Your task to perform on an android device: visit the assistant section in the google photos Image 0: 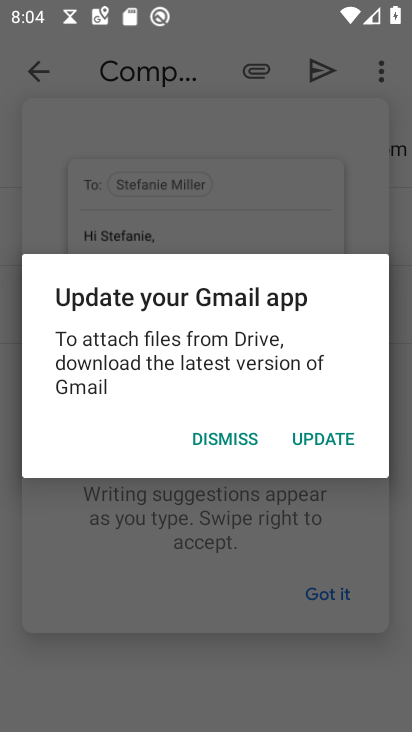
Step 0: press home button
Your task to perform on an android device: visit the assistant section in the google photos Image 1: 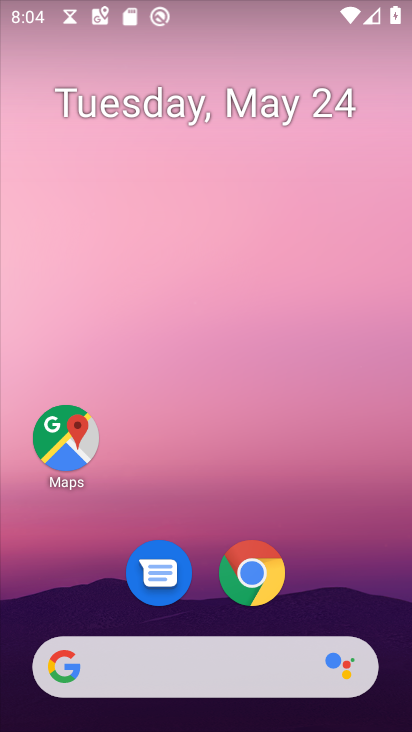
Step 1: drag from (342, 546) to (218, 2)
Your task to perform on an android device: visit the assistant section in the google photos Image 2: 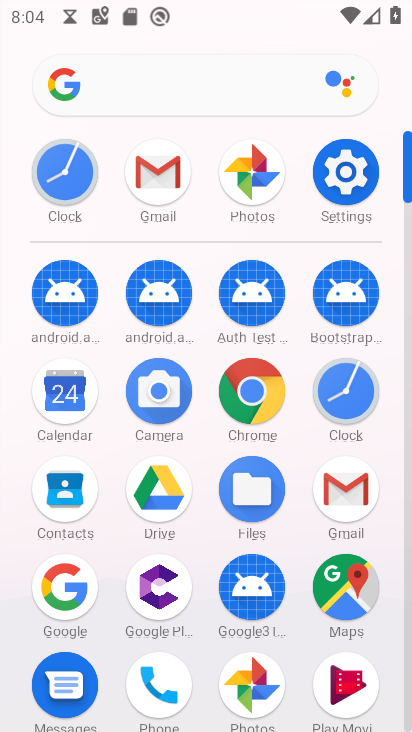
Step 2: click (267, 172)
Your task to perform on an android device: visit the assistant section in the google photos Image 3: 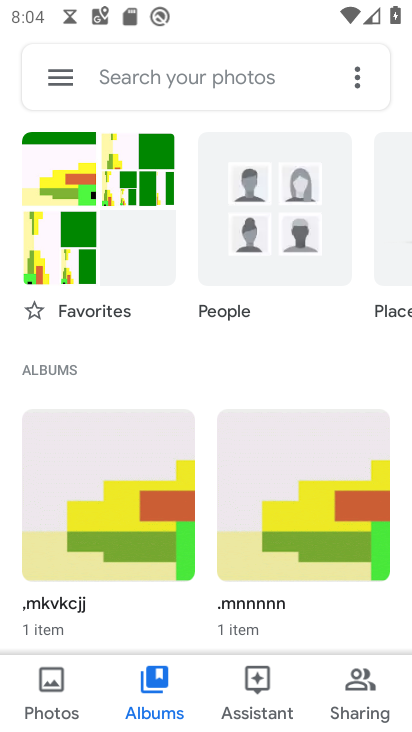
Step 3: click (252, 707)
Your task to perform on an android device: visit the assistant section in the google photos Image 4: 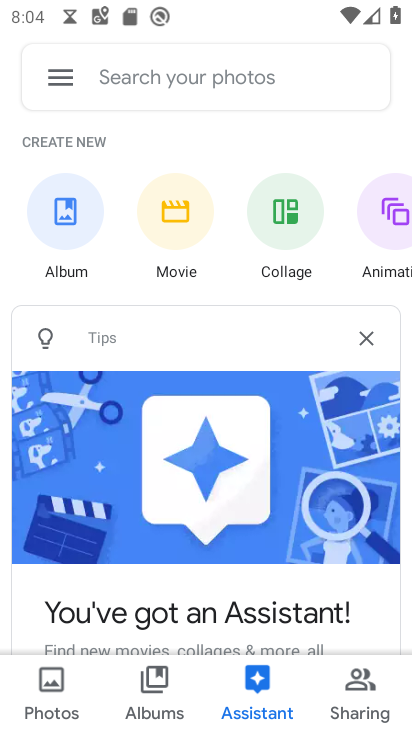
Step 4: task complete